Your task to perform on an android device: Show me the alarms in the clock app Image 0: 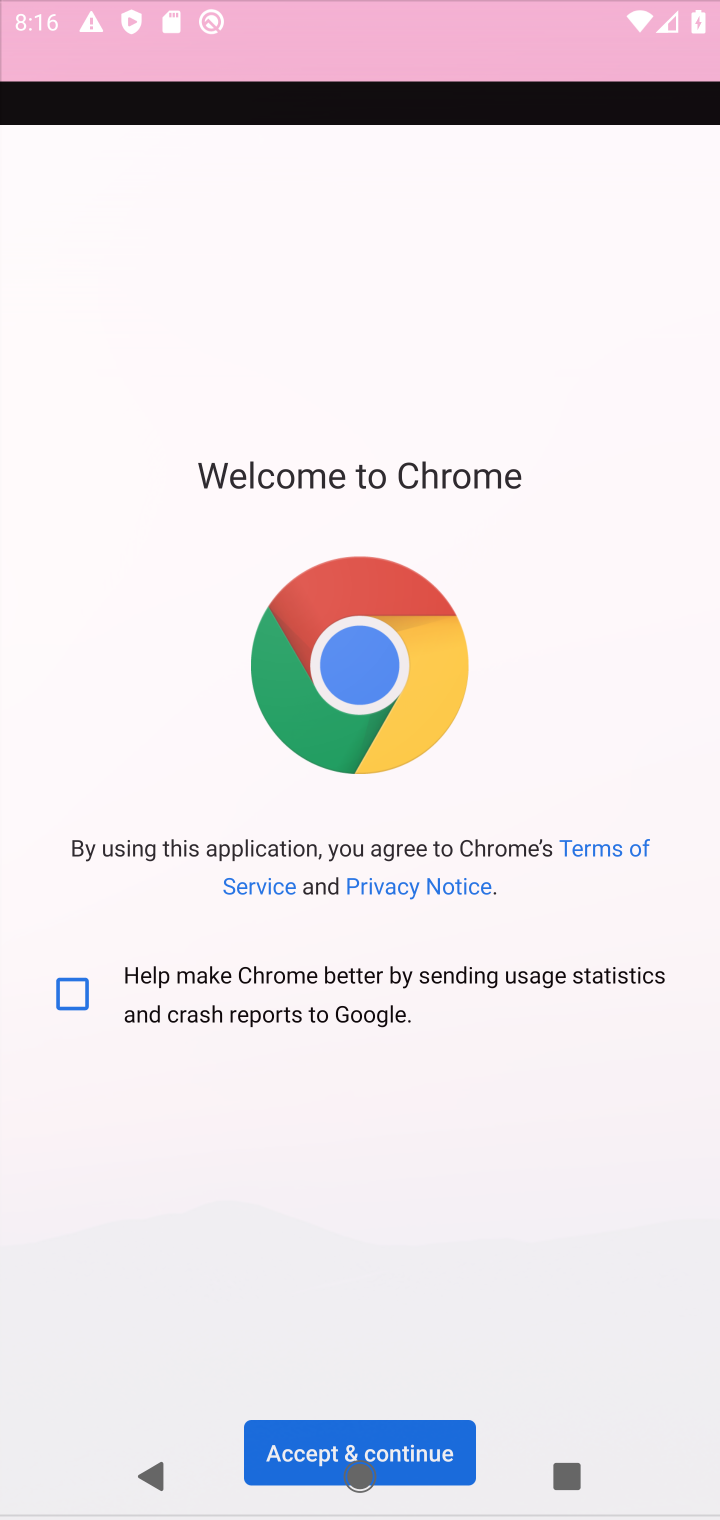
Step 0: click (395, 1113)
Your task to perform on an android device: Show me the alarms in the clock app Image 1: 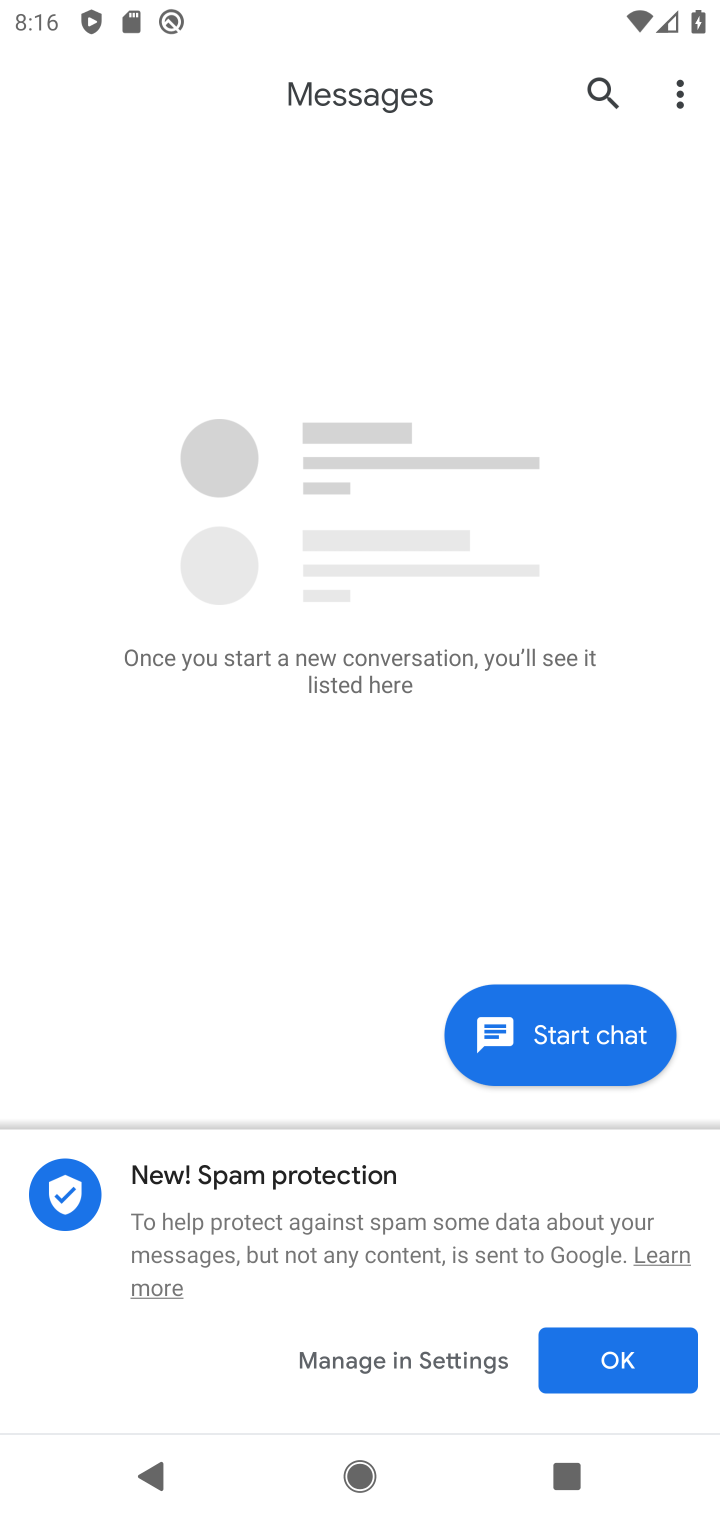
Step 1: press back button
Your task to perform on an android device: Show me the alarms in the clock app Image 2: 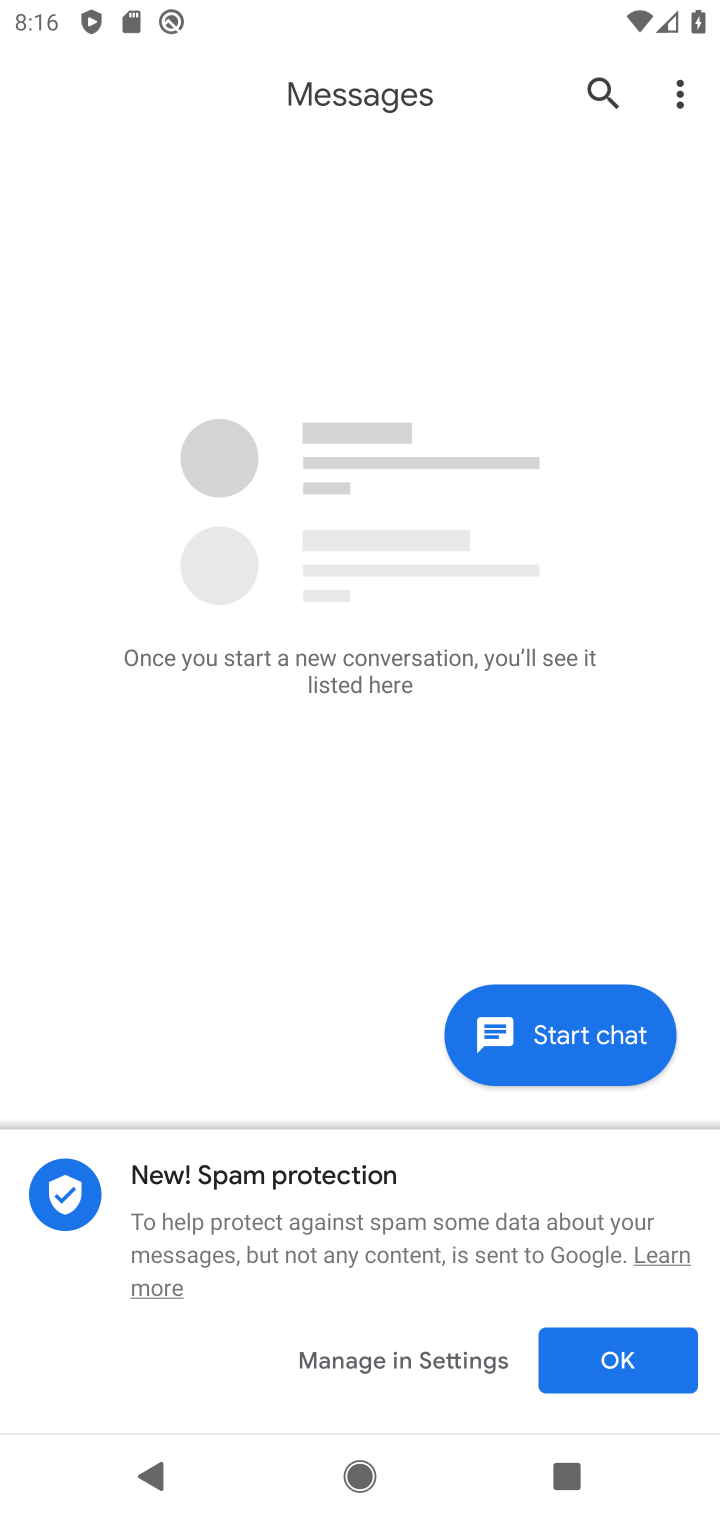
Step 2: press back button
Your task to perform on an android device: Show me the alarms in the clock app Image 3: 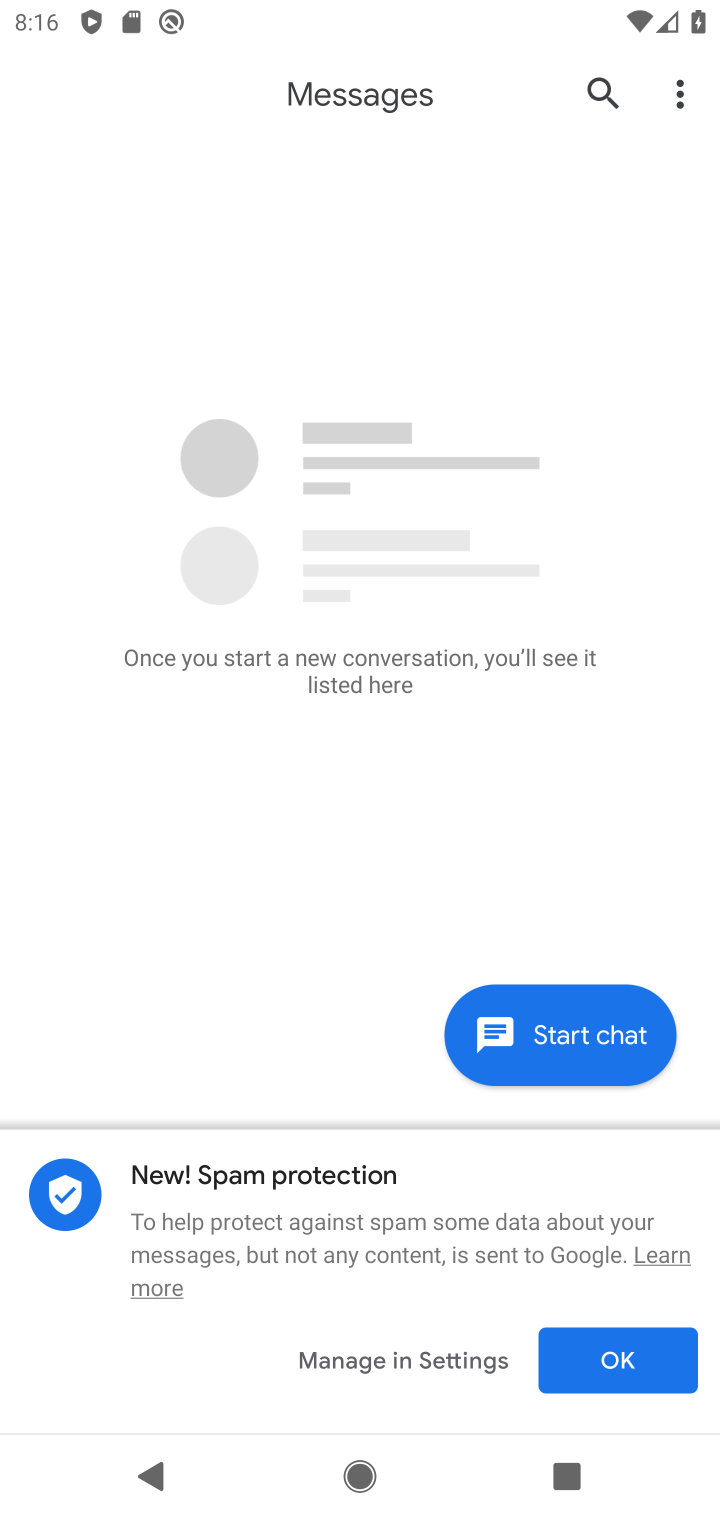
Step 3: click (583, 1358)
Your task to perform on an android device: Show me the alarms in the clock app Image 4: 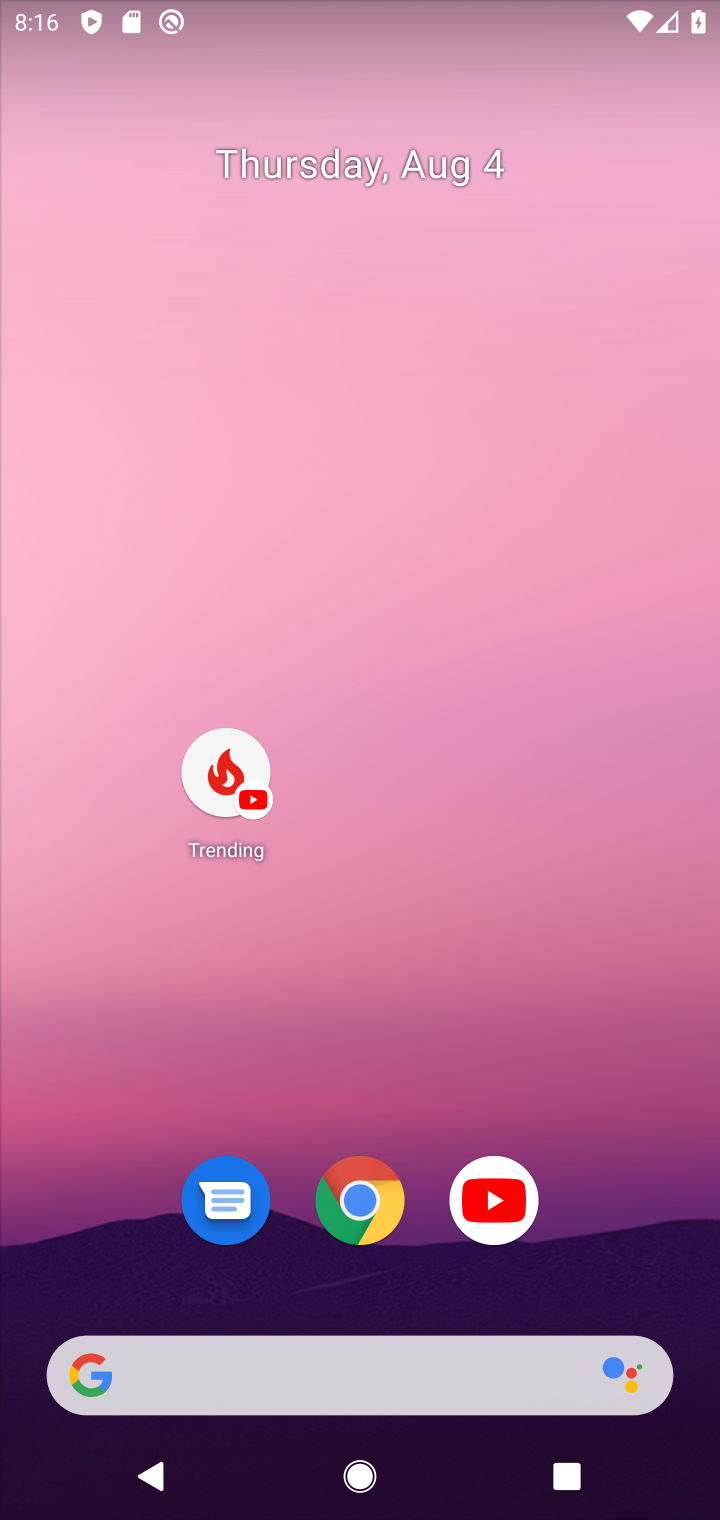
Step 4: click (220, 425)
Your task to perform on an android device: Show me the alarms in the clock app Image 5: 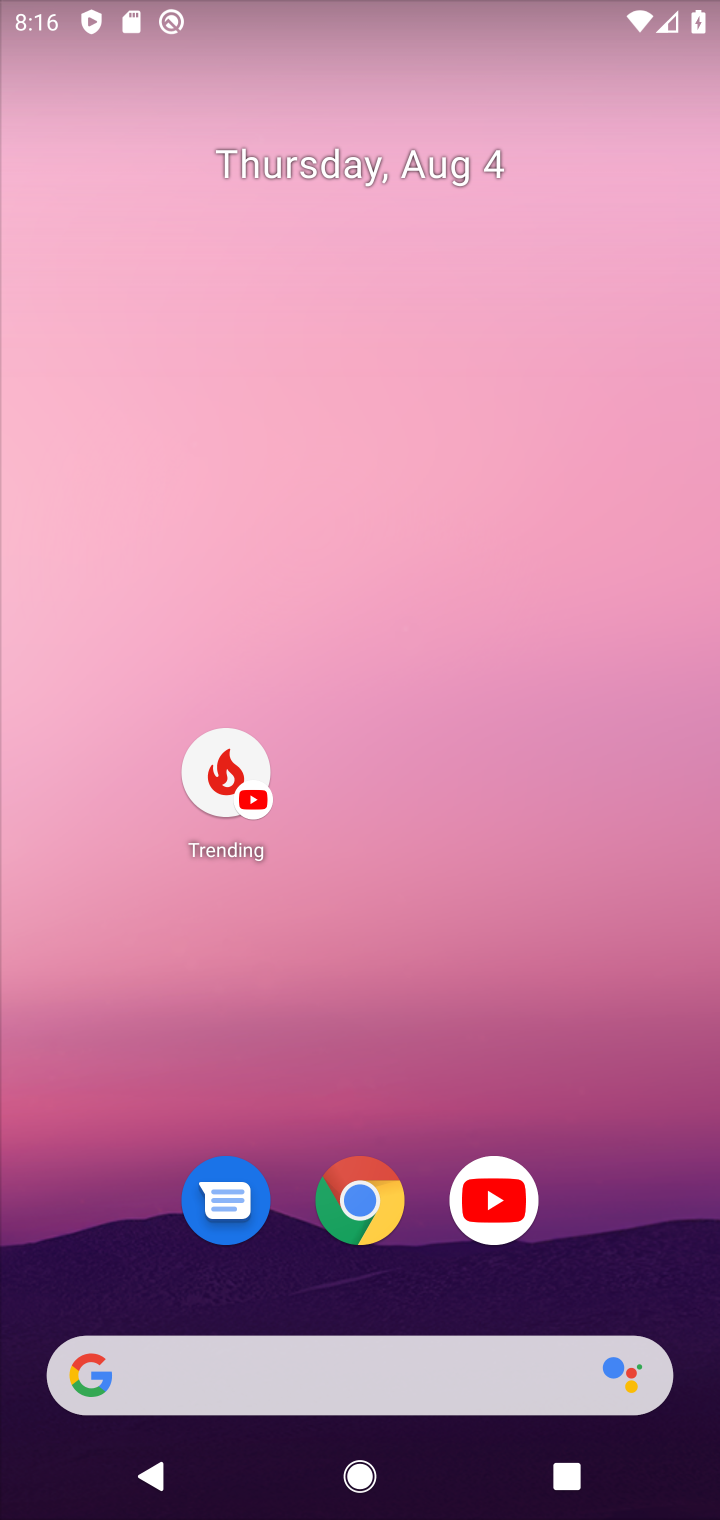
Step 5: drag from (316, 765) to (276, 427)
Your task to perform on an android device: Show me the alarms in the clock app Image 6: 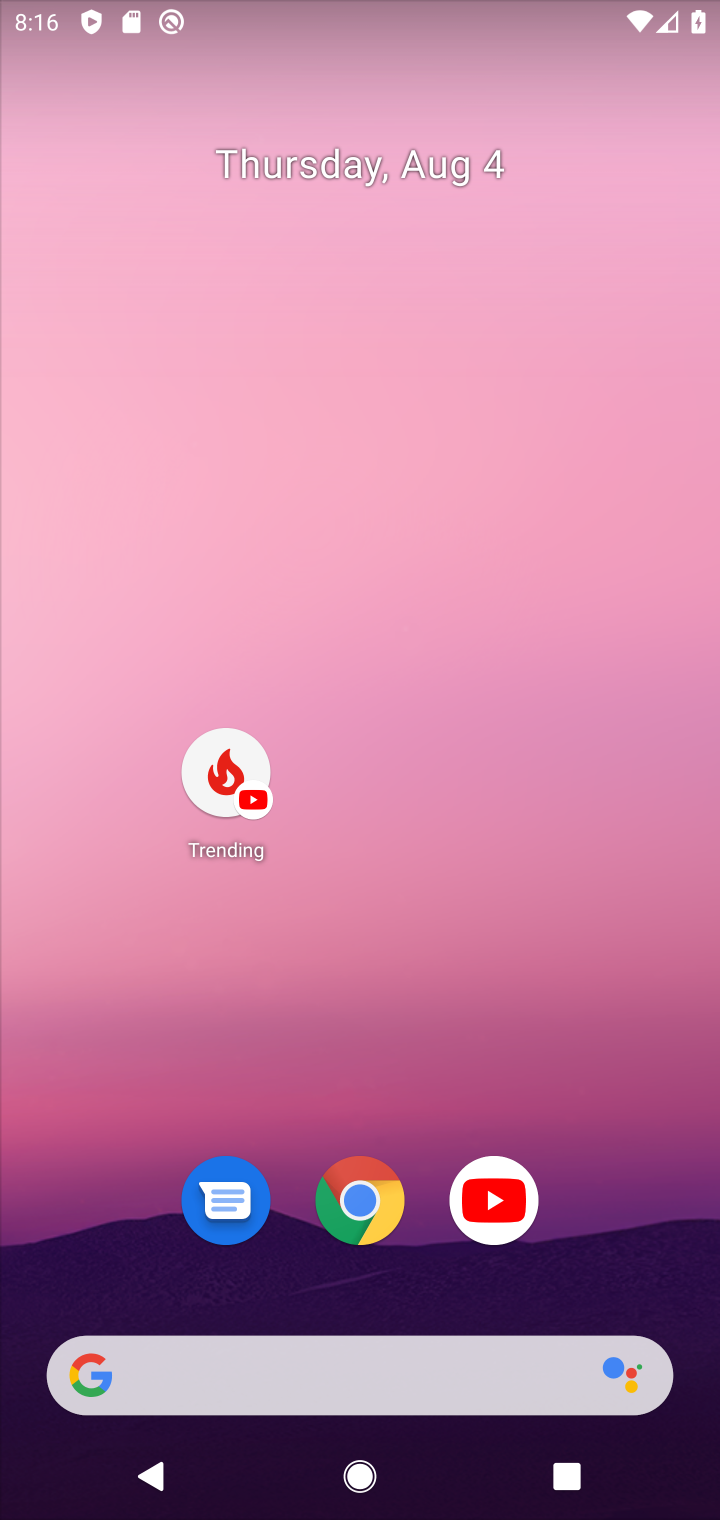
Step 6: click (414, 451)
Your task to perform on an android device: Show me the alarms in the clock app Image 7: 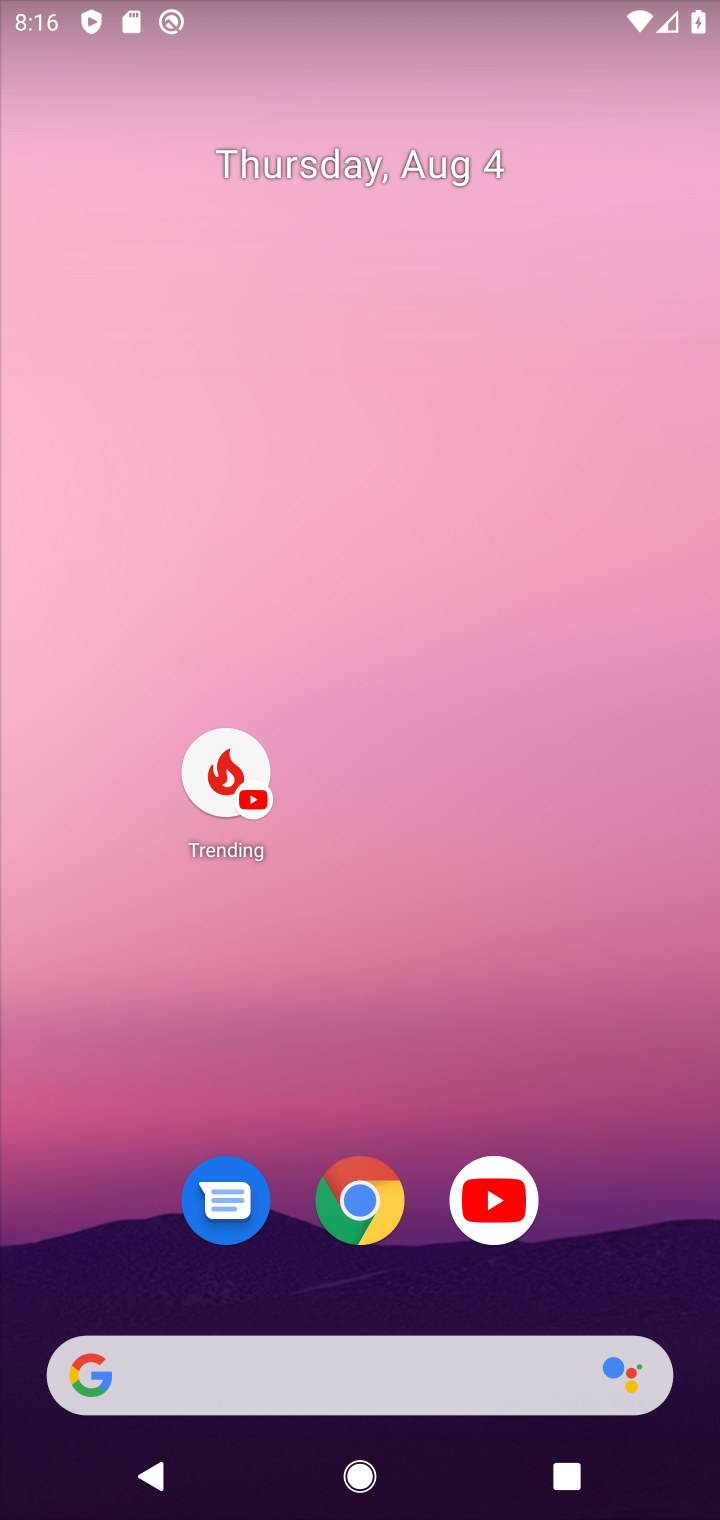
Step 7: drag from (422, 1002) to (332, 428)
Your task to perform on an android device: Show me the alarms in the clock app Image 8: 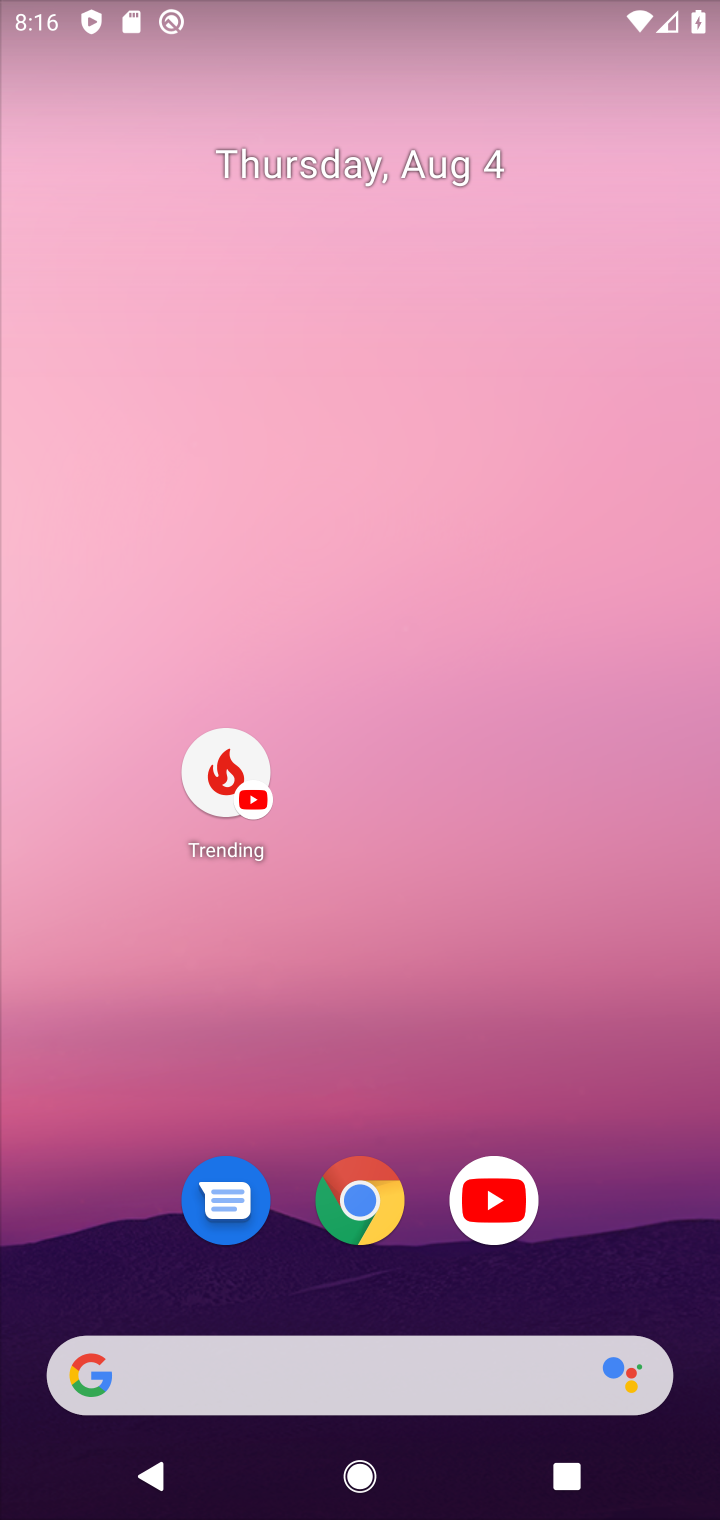
Step 8: click (488, 546)
Your task to perform on an android device: Show me the alarms in the clock app Image 9: 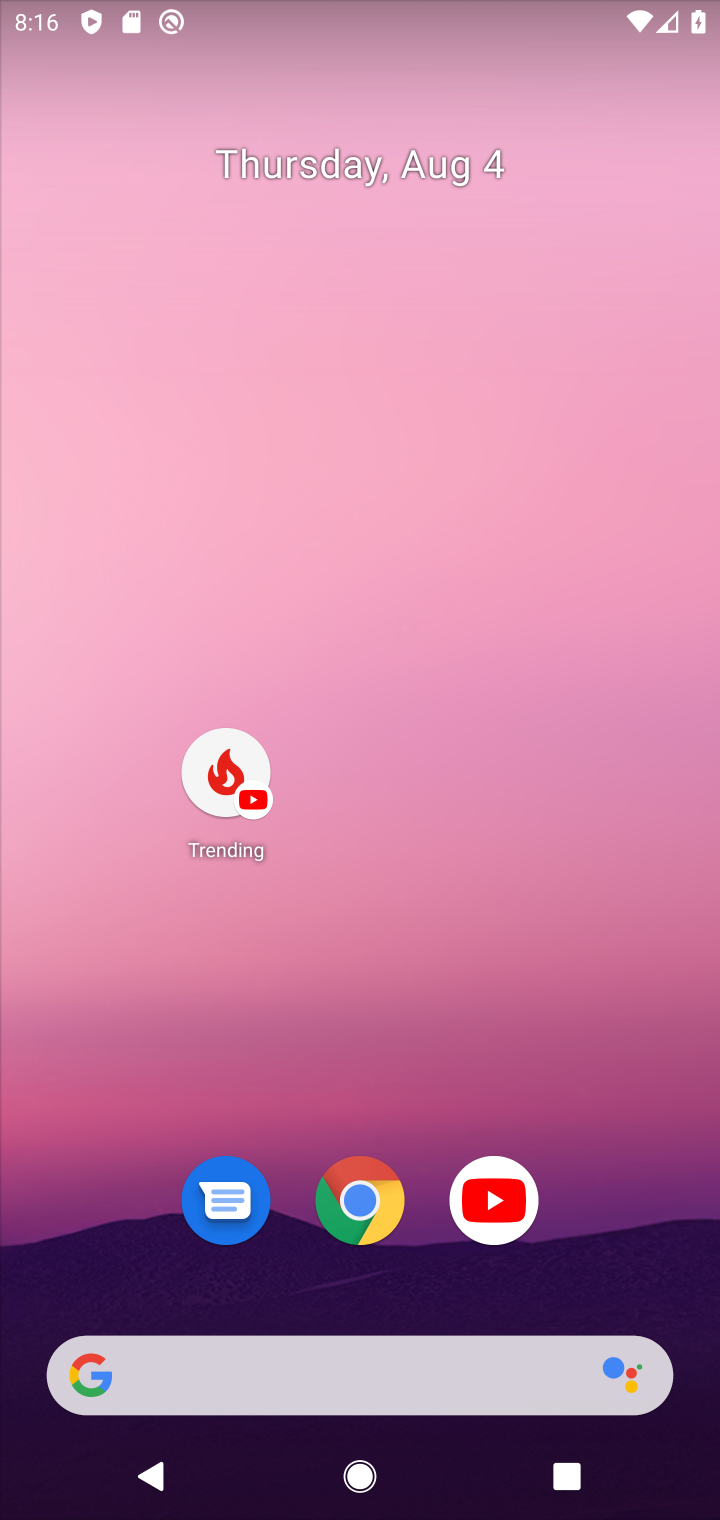
Step 9: drag from (506, 1240) to (314, 481)
Your task to perform on an android device: Show me the alarms in the clock app Image 10: 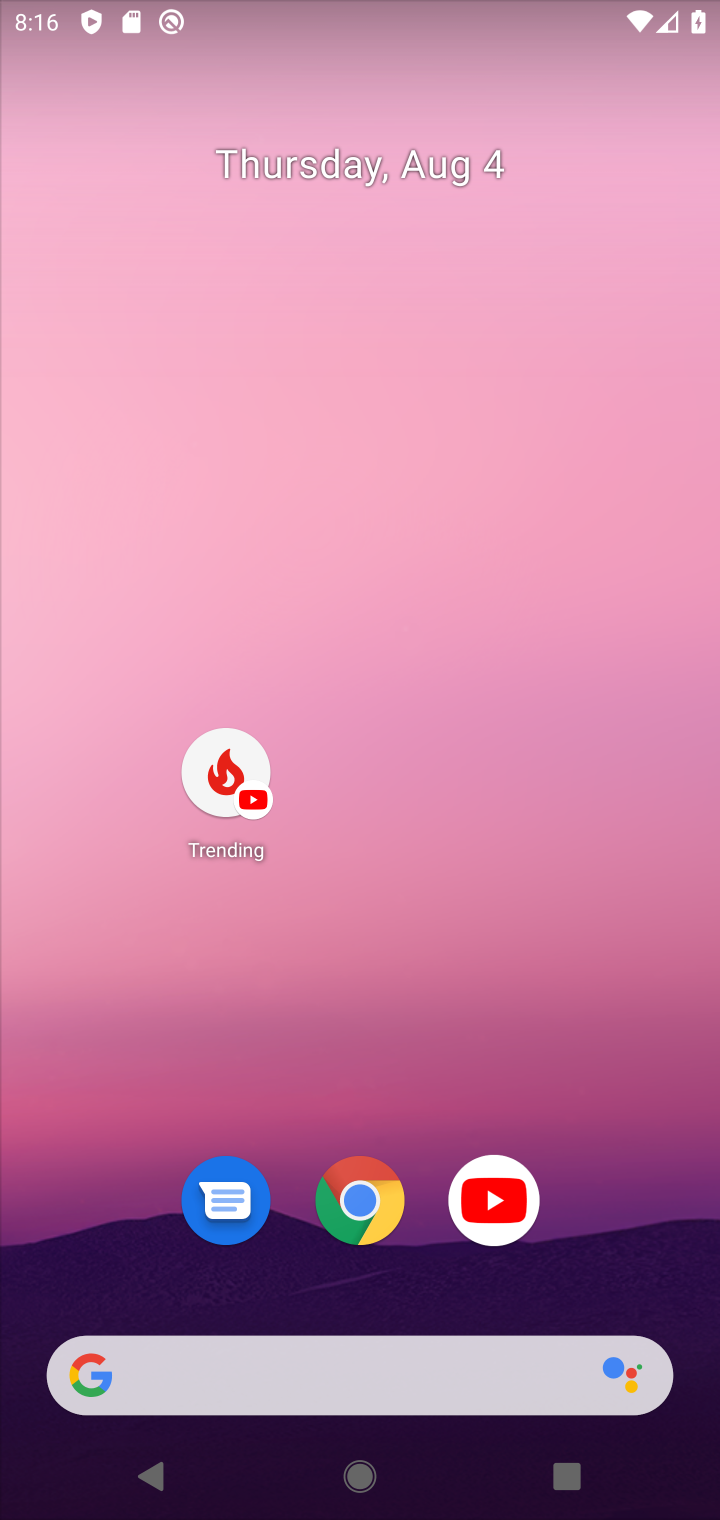
Step 10: drag from (608, 1150) to (387, 282)
Your task to perform on an android device: Show me the alarms in the clock app Image 11: 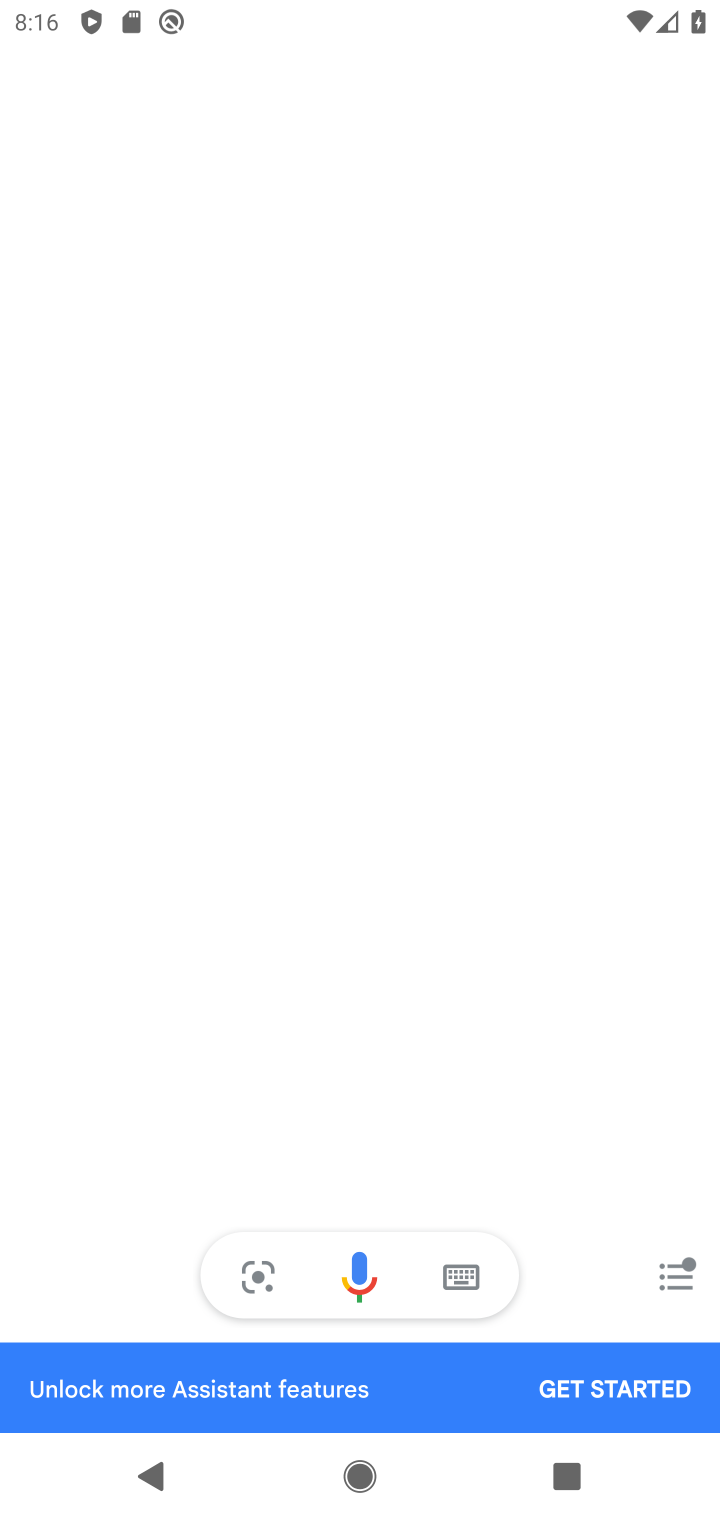
Step 11: press back button
Your task to perform on an android device: Show me the alarms in the clock app Image 12: 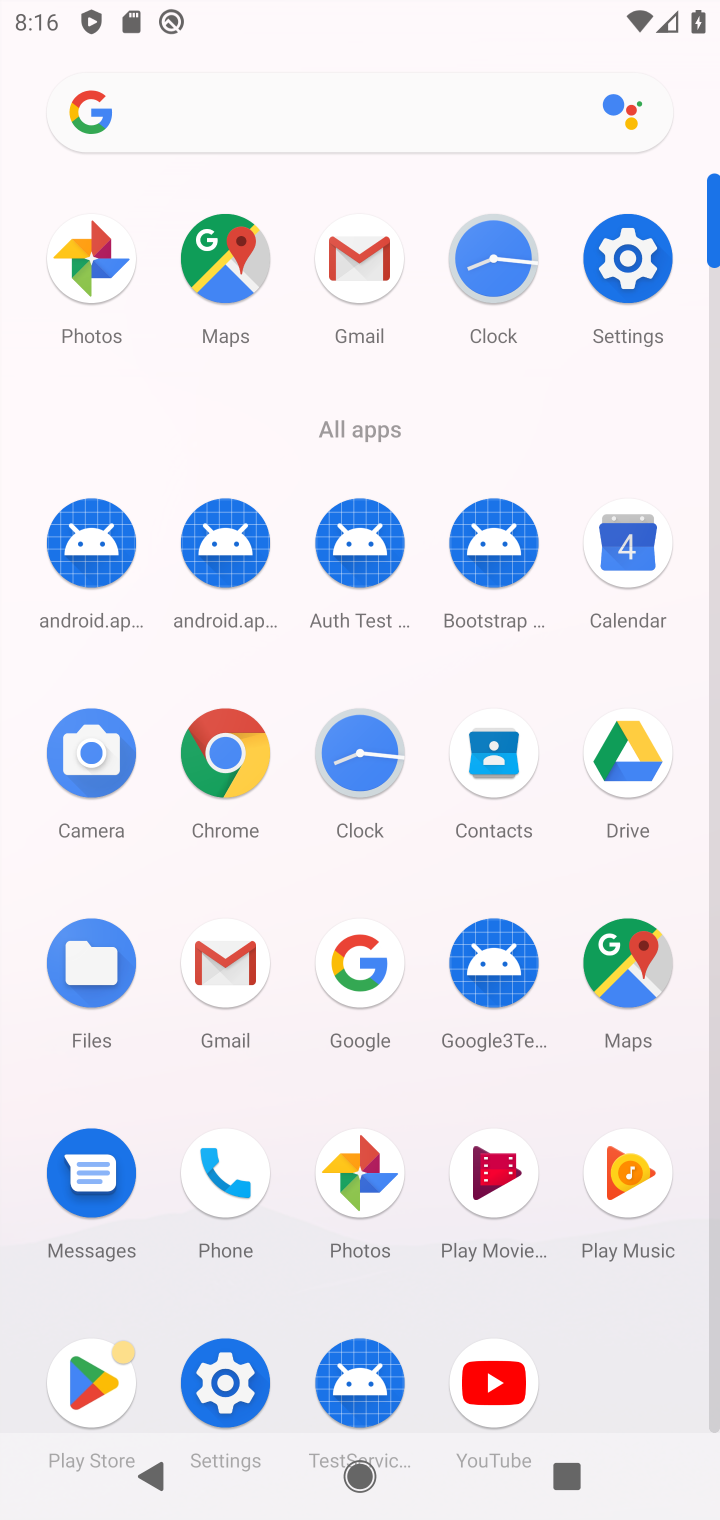
Step 12: click (374, 748)
Your task to perform on an android device: Show me the alarms in the clock app Image 13: 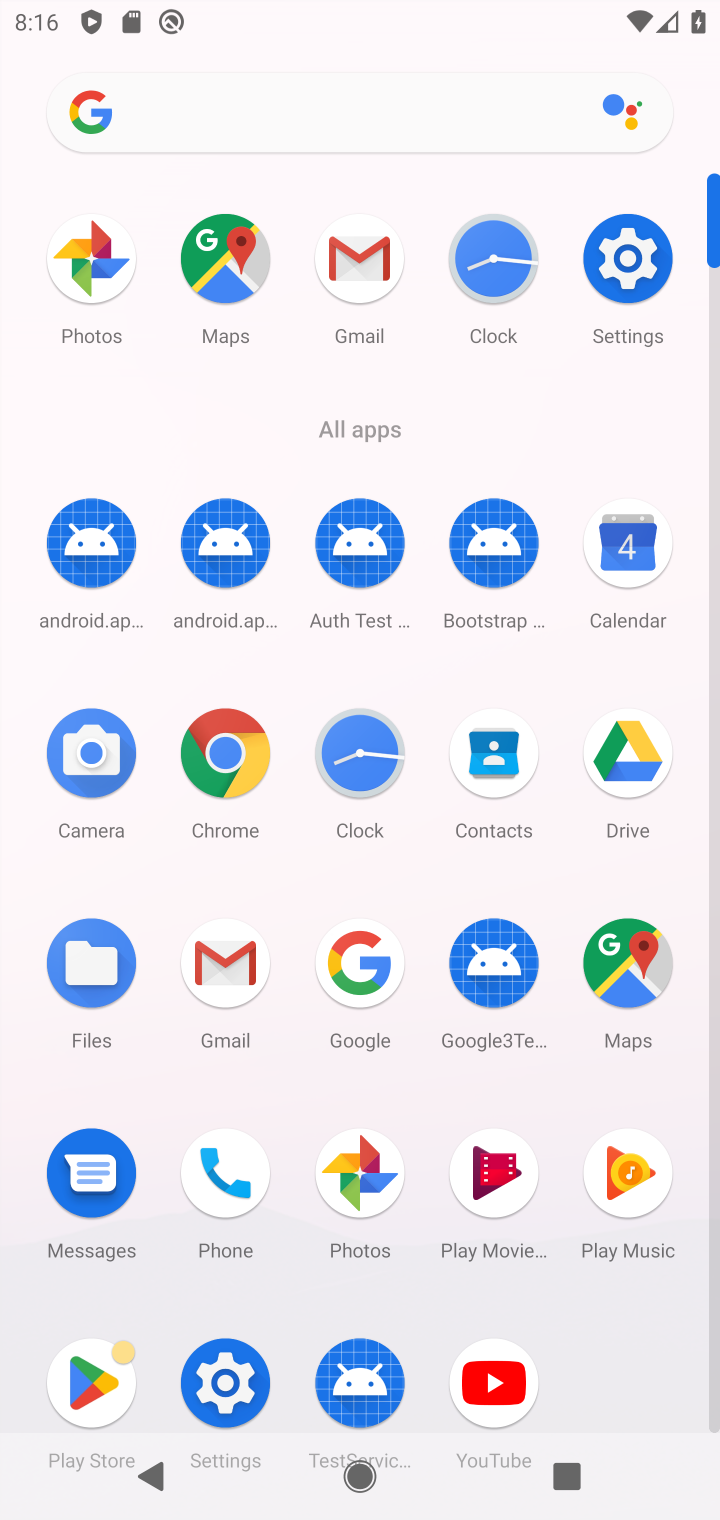
Step 13: click (374, 751)
Your task to perform on an android device: Show me the alarms in the clock app Image 14: 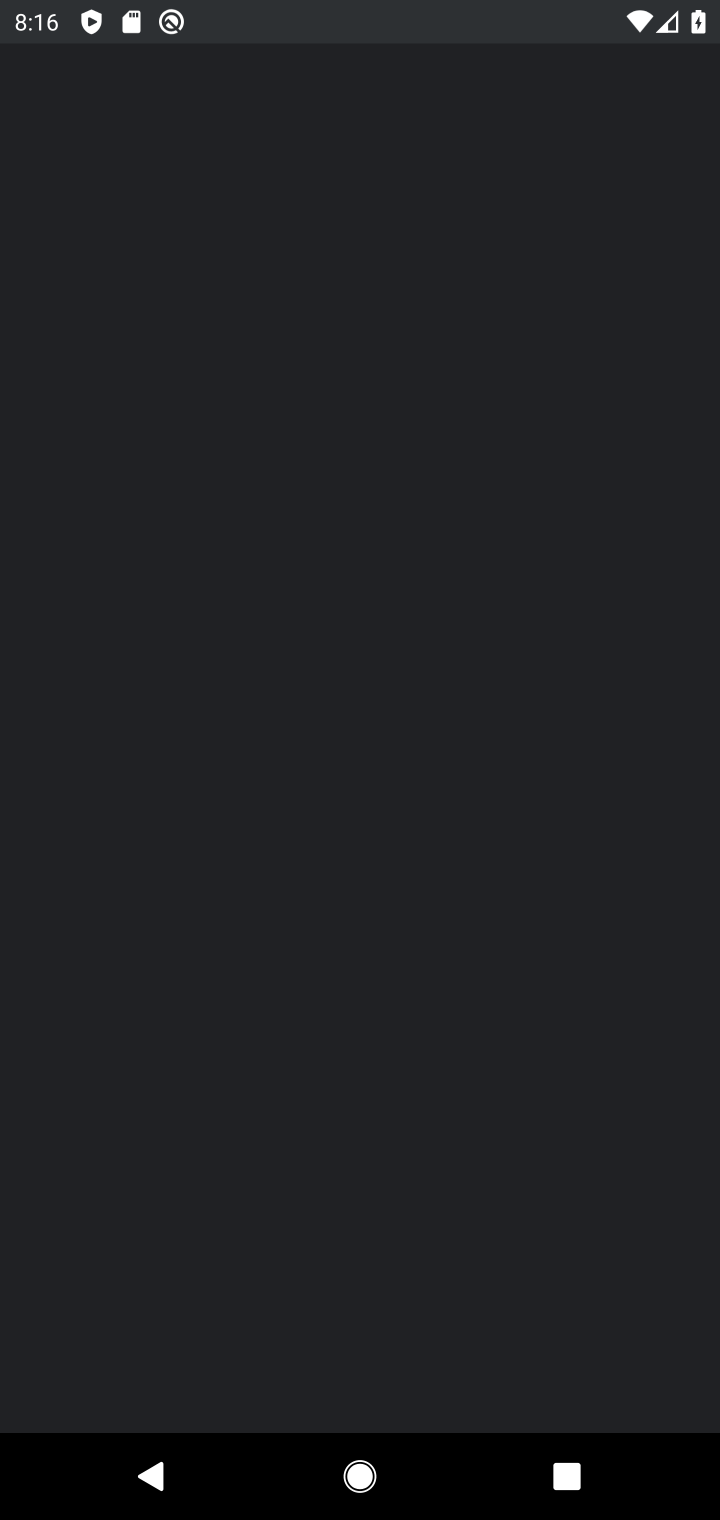
Step 14: click (375, 753)
Your task to perform on an android device: Show me the alarms in the clock app Image 15: 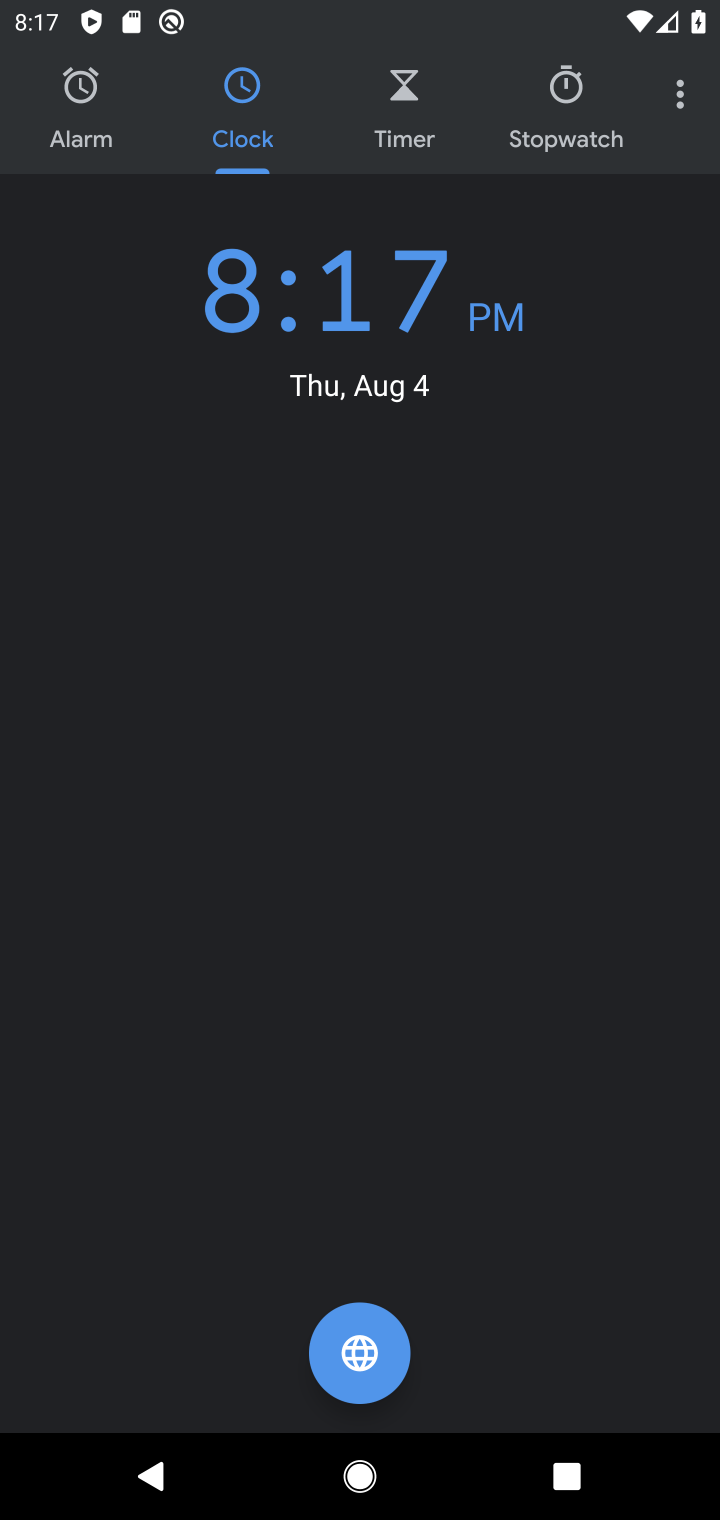
Step 15: click (86, 132)
Your task to perform on an android device: Show me the alarms in the clock app Image 16: 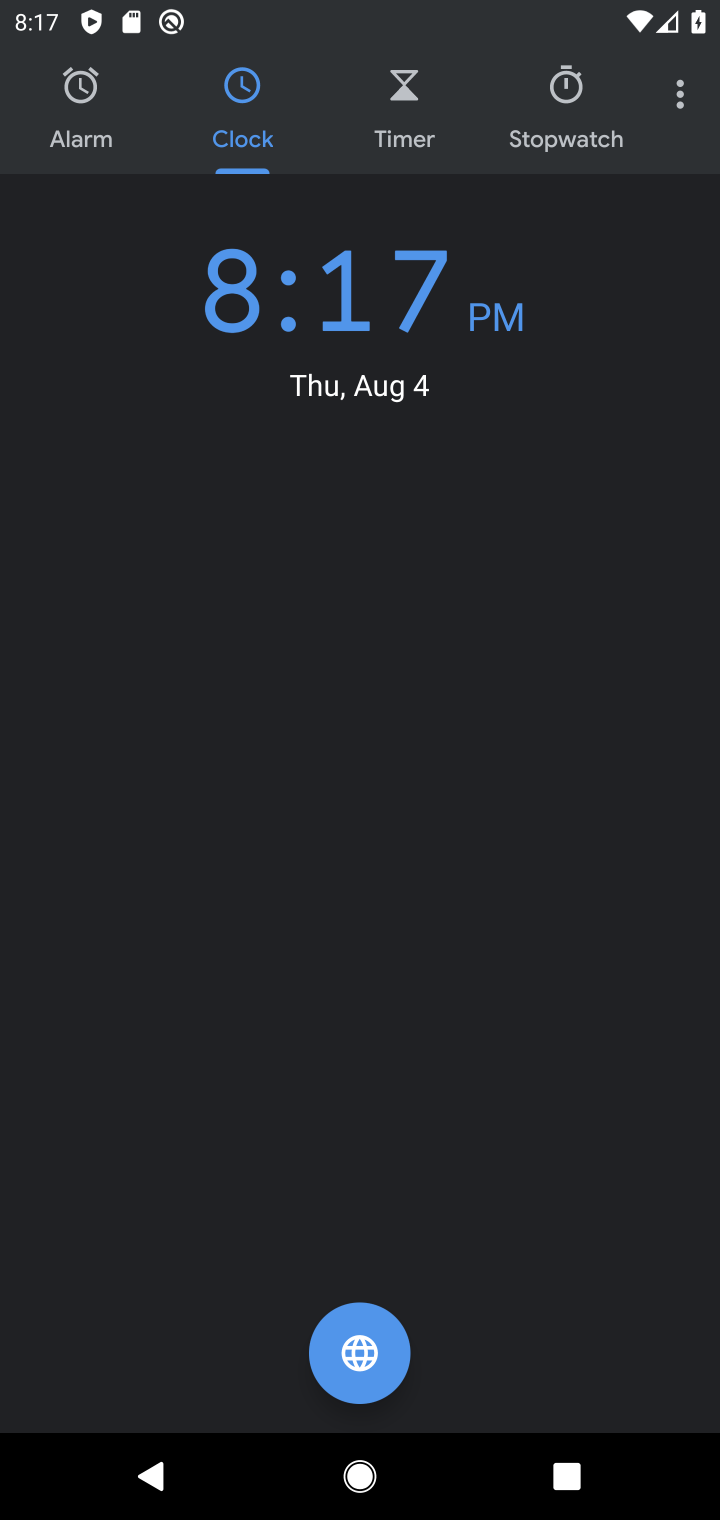
Step 16: click (86, 132)
Your task to perform on an android device: Show me the alarms in the clock app Image 17: 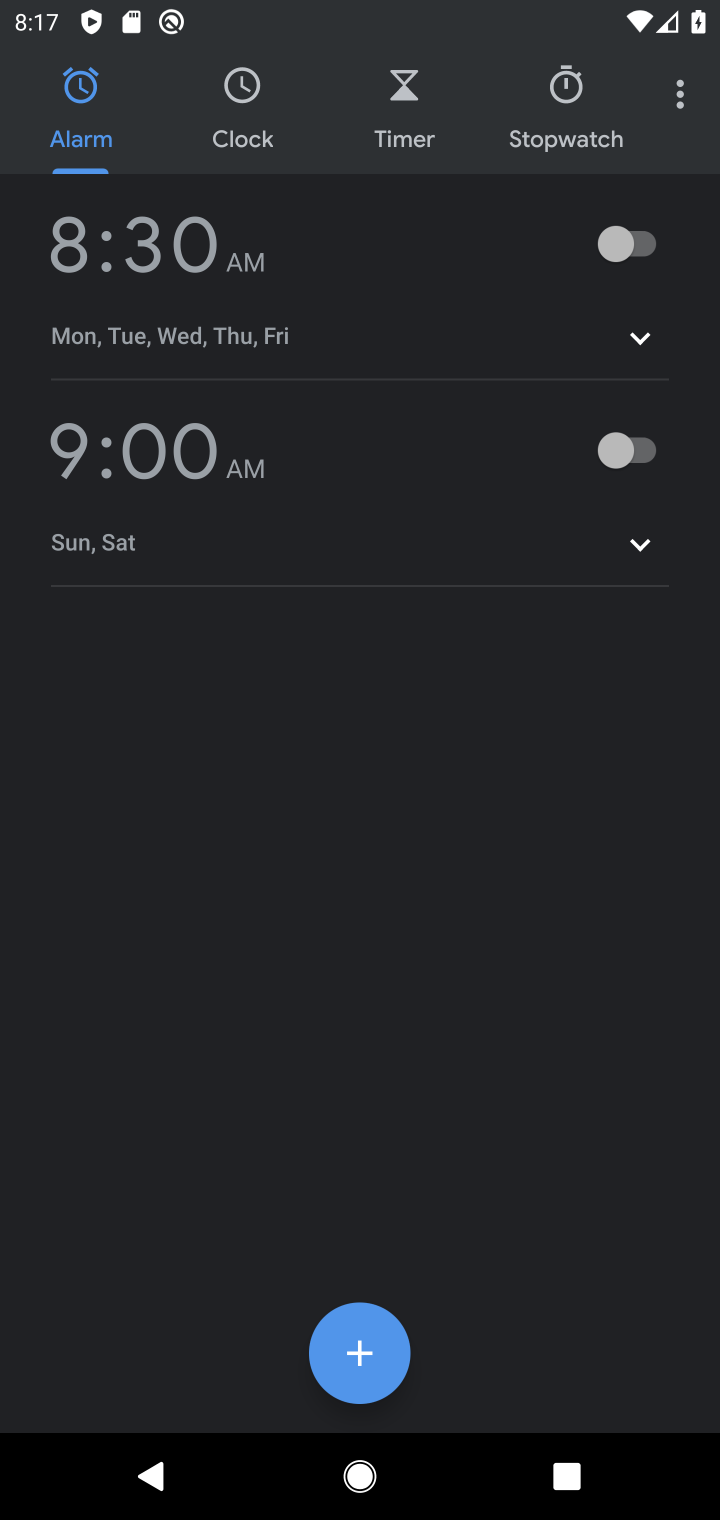
Step 17: click (591, 232)
Your task to perform on an android device: Show me the alarms in the clock app Image 18: 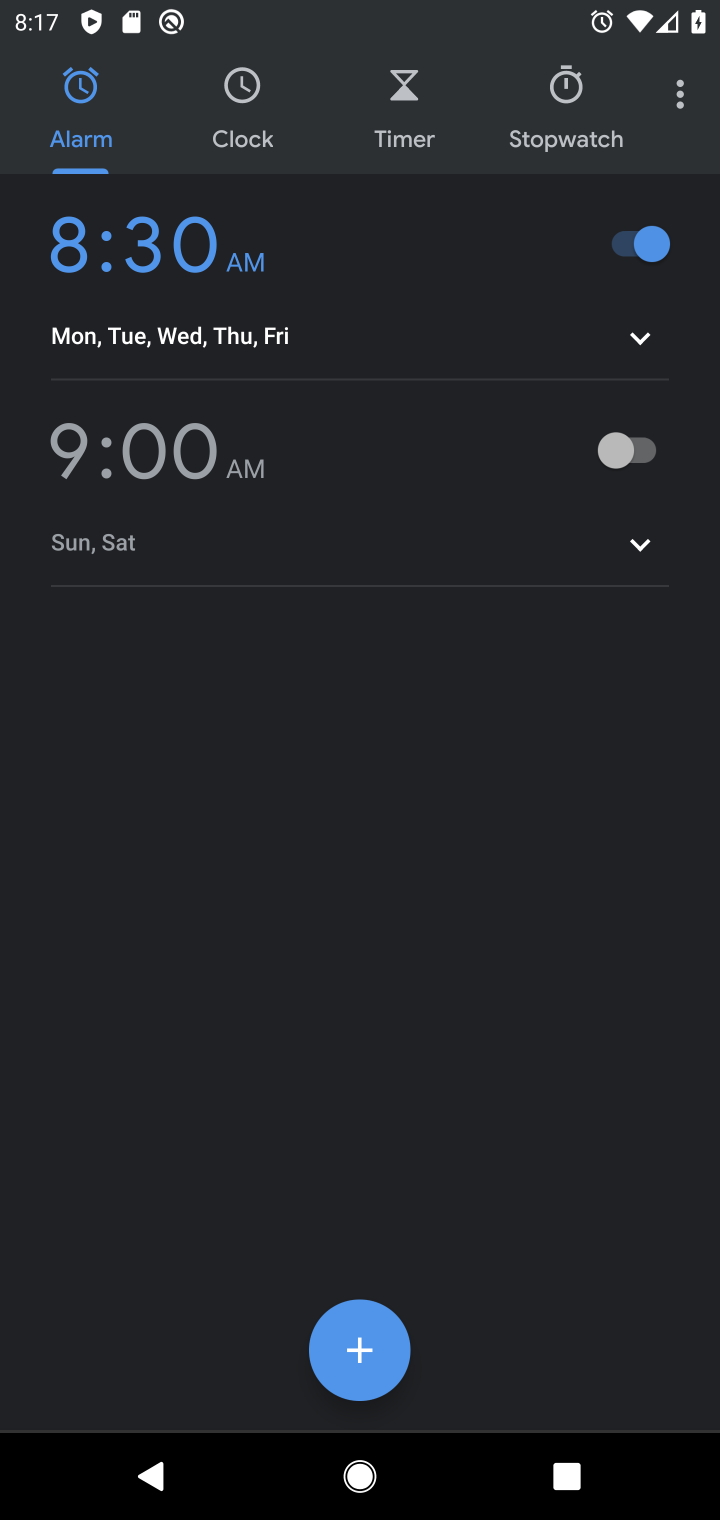
Step 18: task complete